Your task to perform on an android device: Open the phone app and click the voicemail tab. Image 0: 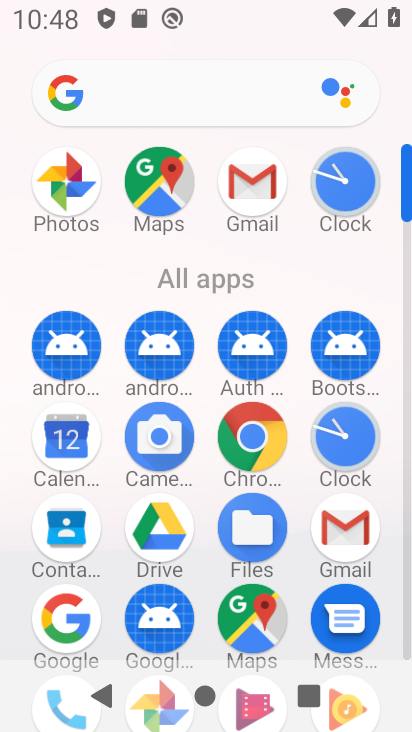
Step 0: press home button
Your task to perform on an android device: Open the phone app and click the voicemail tab. Image 1: 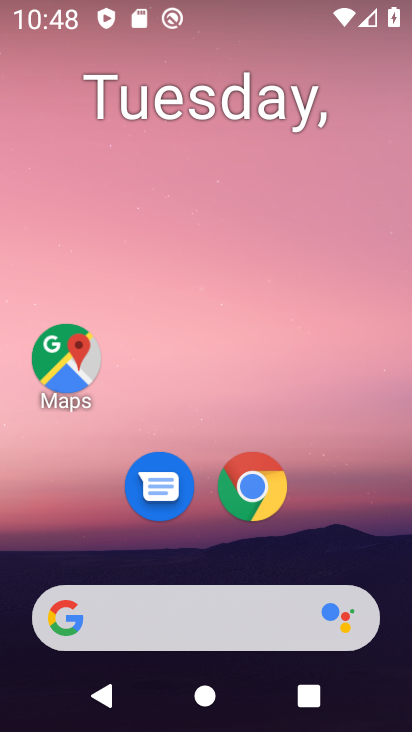
Step 1: drag from (353, 525) to (317, 233)
Your task to perform on an android device: Open the phone app and click the voicemail tab. Image 2: 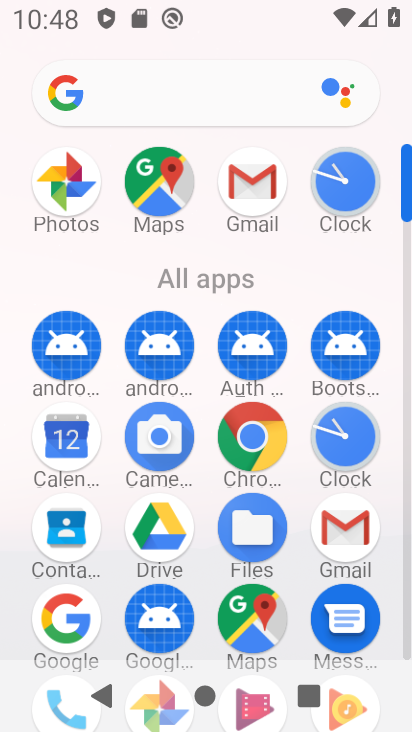
Step 2: drag from (386, 557) to (391, 233)
Your task to perform on an android device: Open the phone app and click the voicemail tab. Image 3: 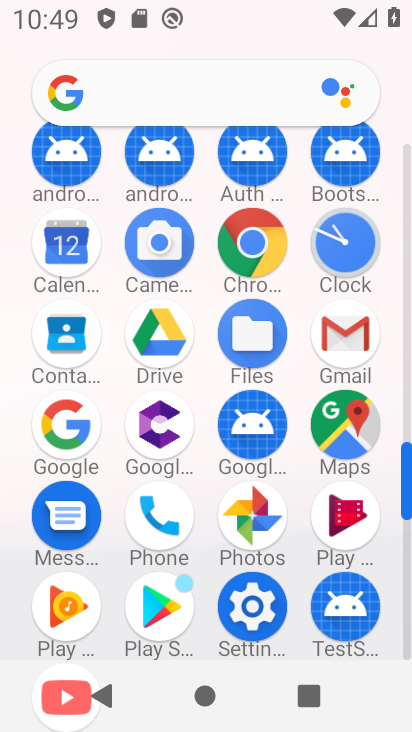
Step 3: click (361, 516)
Your task to perform on an android device: Open the phone app and click the voicemail tab. Image 4: 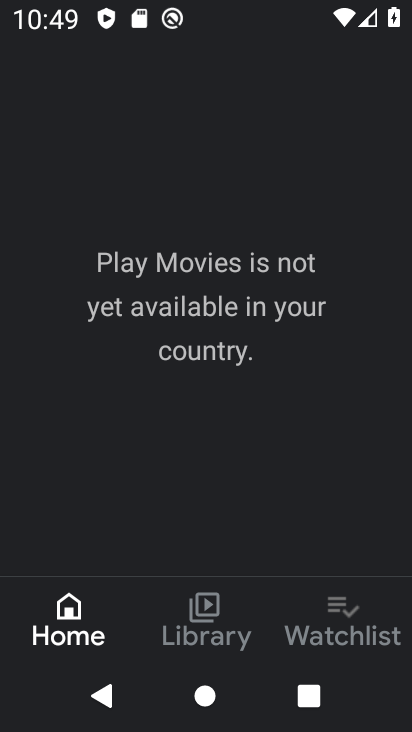
Step 4: click (338, 628)
Your task to perform on an android device: Open the phone app and click the voicemail tab. Image 5: 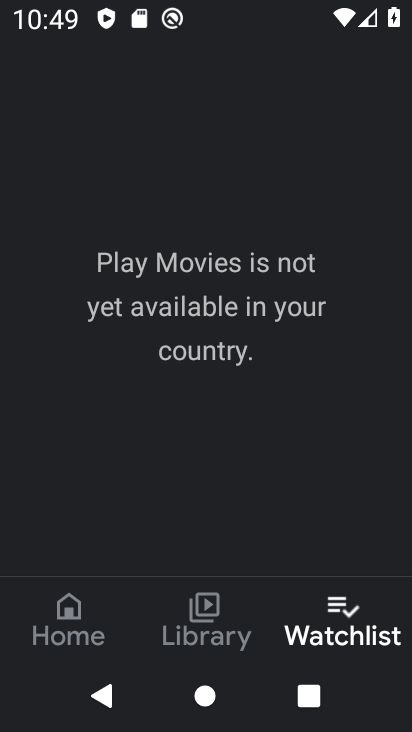
Step 5: task complete